Your task to perform on an android device: open the mobile data screen to see how much data has been used Image 0: 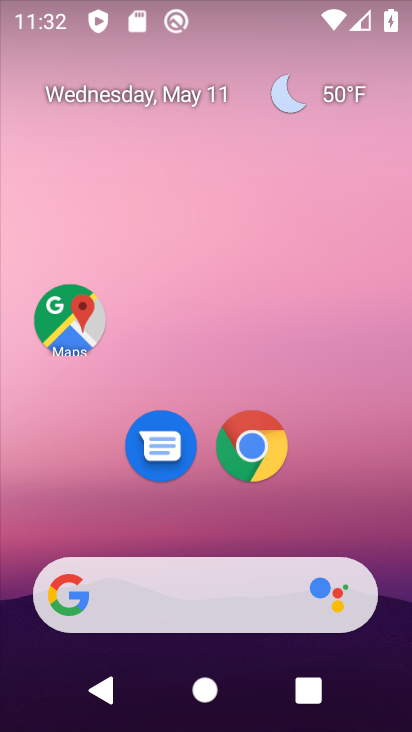
Step 0: drag from (329, 249) to (324, 189)
Your task to perform on an android device: open the mobile data screen to see how much data has been used Image 1: 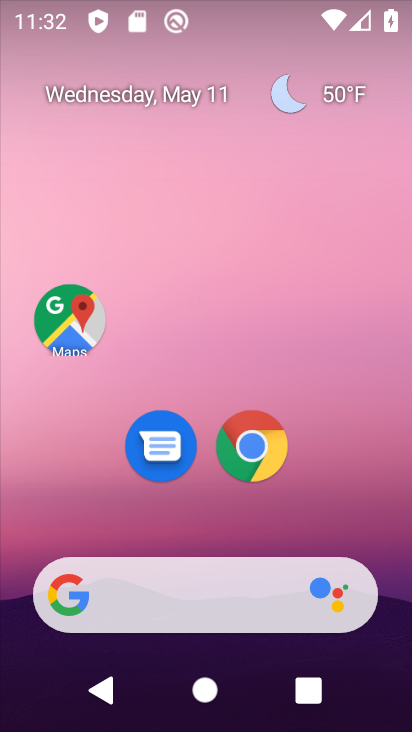
Step 1: drag from (327, 494) to (286, 162)
Your task to perform on an android device: open the mobile data screen to see how much data has been used Image 2: 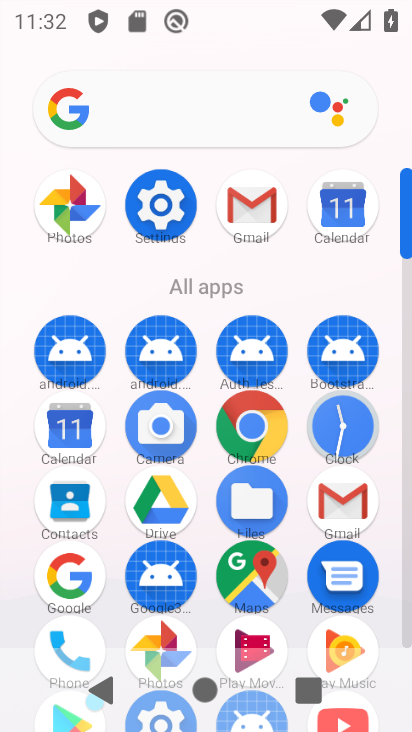
Step 2: click (172, 194)
Your task to perform on an android device: open the mobile data screen to see how much data has been used Image 3: 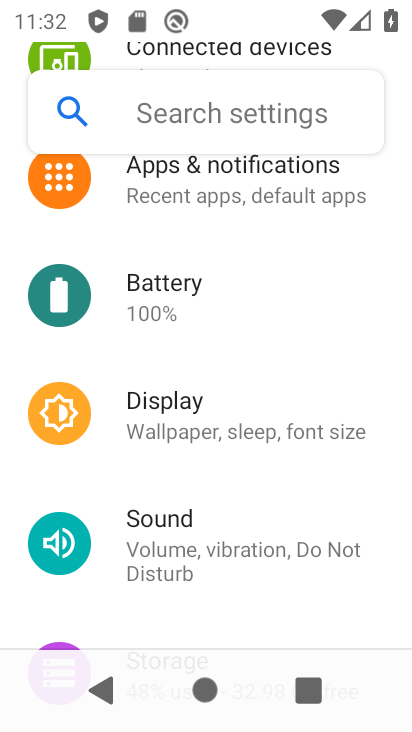
Step 3: drag from (262, 268) to (284, 572)
Your task to perform on an android device: open the mobile data screen to see how much data has been used Image 4: 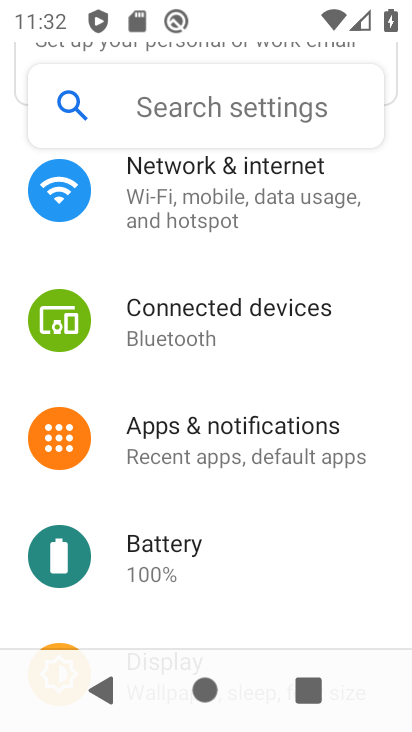
Step 4: click (236, 209)
Your task to perform on an android device: open the mobile data screen to see how much data has been used Image 5: 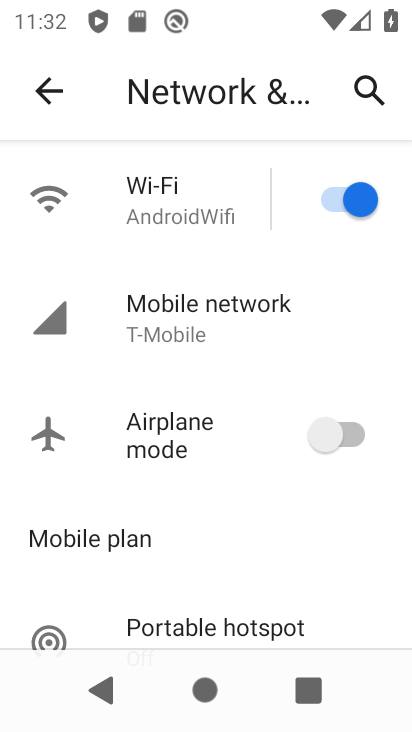
Step 5: click (176, 316)
Your task to perform on an android device: open the mobile data screen to see how much data has been used Image 6: 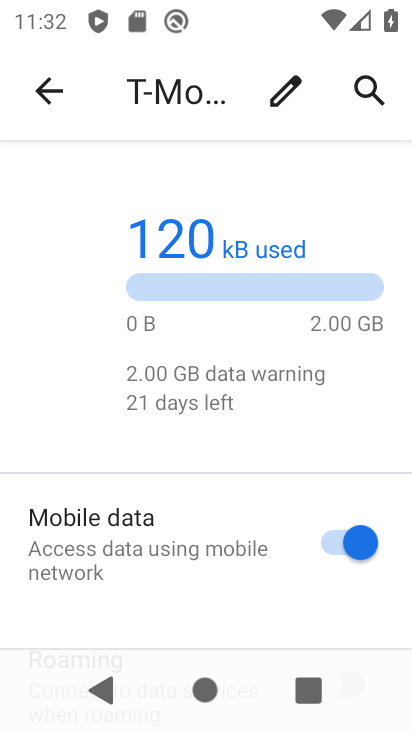
Step 6: drag from (262, 559) to (235, 174)
Your task to perform on an android device: open the mobile data screen to see how much data has been used Image 7: 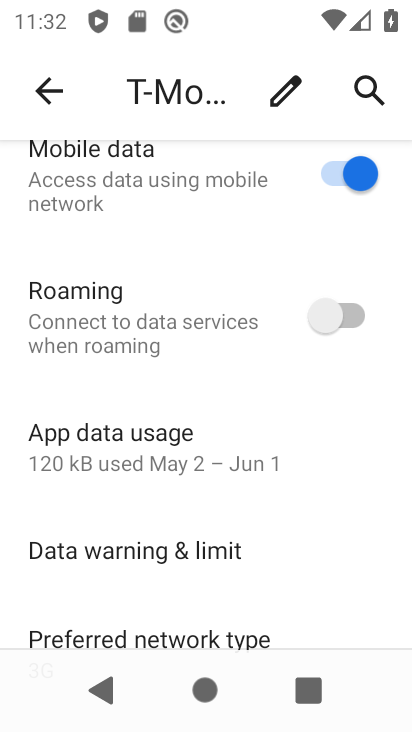
Step 7: drag from (220, 239) to (219, 579)
Your task to perform on an android device: open the mobile data screen to see how much data has been used Image 8: 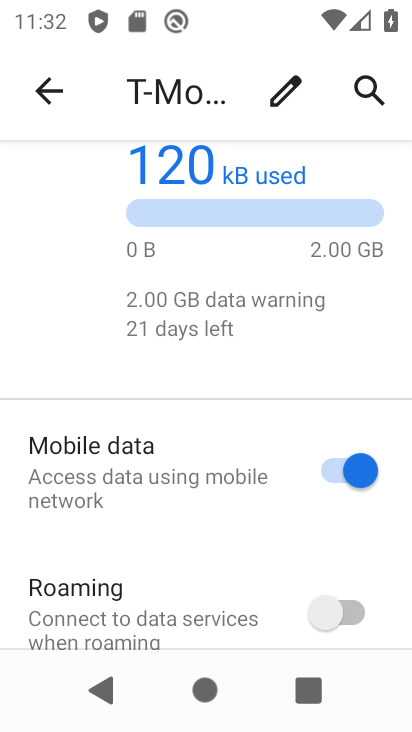
Step 8: drag from (219, 458) to (219, 600)
Your task to perform on an android device: open the mobile data screen to see how much data has been used Image 9: 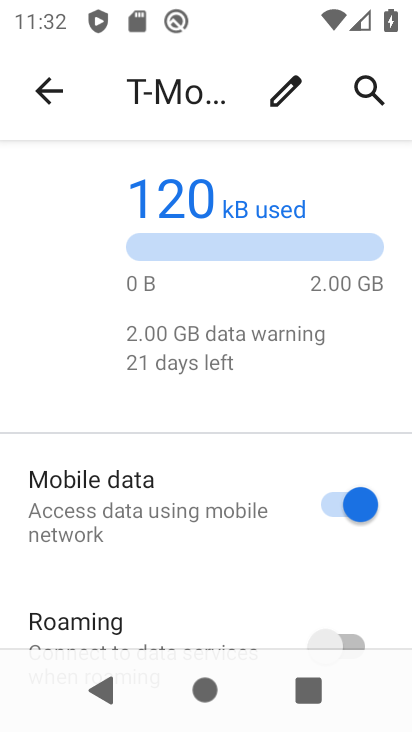
Step 9: drag from (221, 600) to (232, 127)
Your task to perform on an android device: open the mobile data screen to see how much data has been used Image 10: 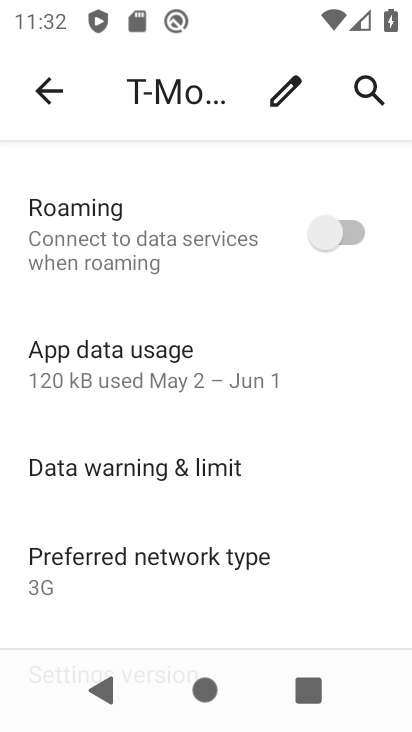
Step 10: drag from (243, 478) to (205, 148)
Your task to perform on an android device: open the mobile data screen to see how much data has been used Image 11: 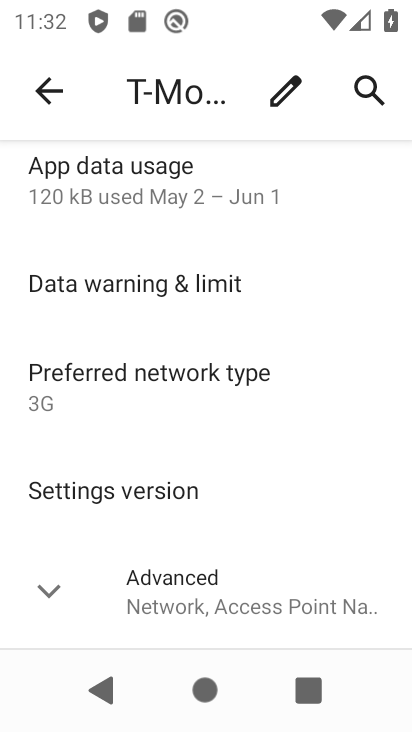
Step 11: drag from (232, 221) to (254, 497)
Your task to perform on an android device: open the mobile data screen to see how much data has been used Image 12: 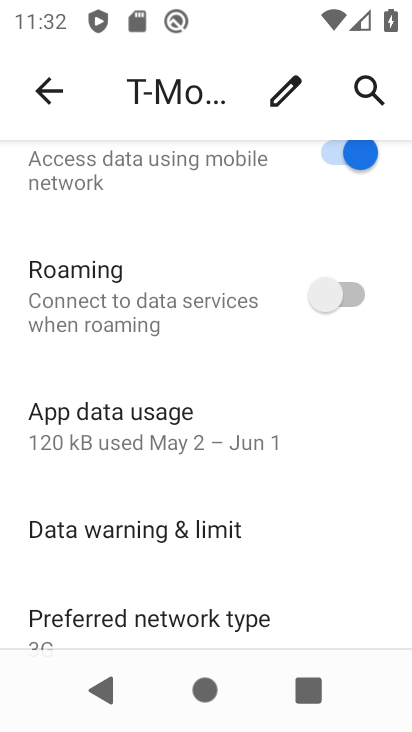
Step 12: drag from (174, 220) to (278, 546)
Your task to perform on an android device: open the mobile data screen to see how much data has been used Image 13: 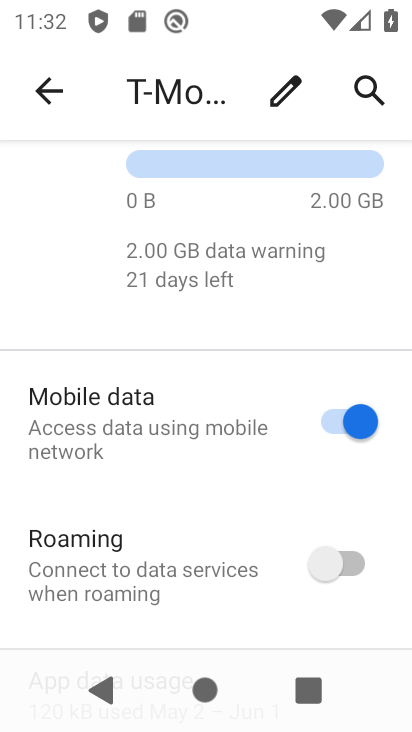
Step 13: drag from (252, 293) to (270, 564)
Your task to perform on an android device: open the mobile data screen to see how much data has been used Image 14: 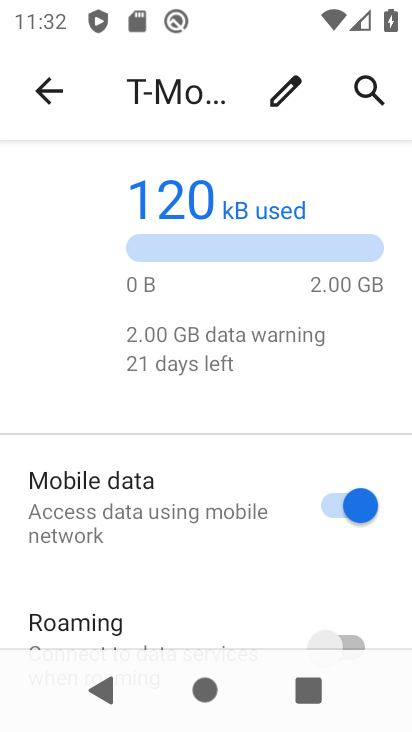
Step 14: drag from (233, 439) to (247, 549)
Your task to perform on an android device: open the mobile data screen to see how much data has been used Image 15: 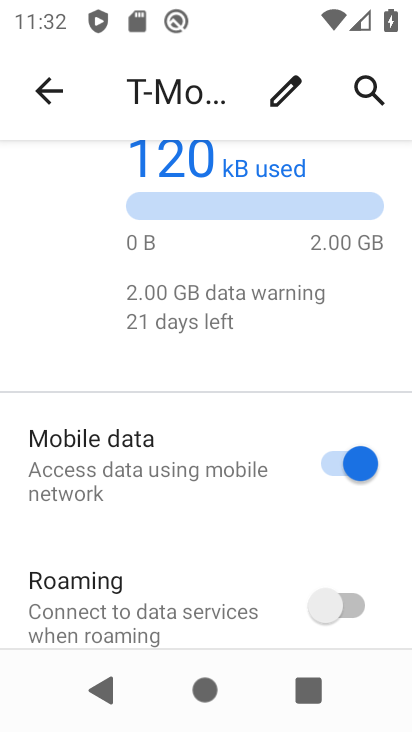
Step 15: drag from (174, 142) to (233, 544)
Your task to perform on an android device: open the mobile data screen to see how much data has been used Image 16: 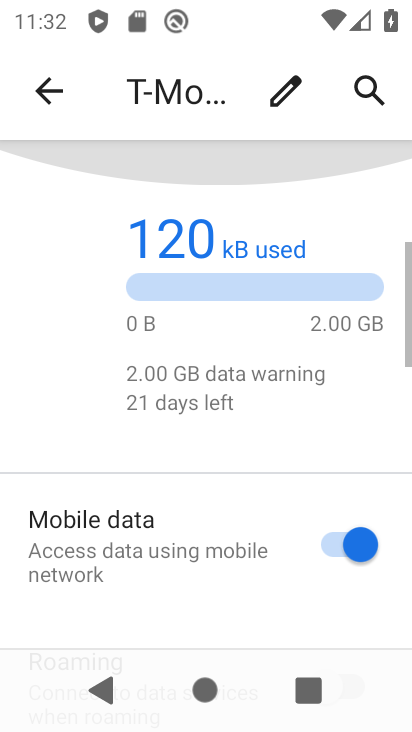
Step 16: drag from (233, 544) to (210, 65)
Your task to perform on an android device: open the mobile data screen to see how much data has been used Image 17: 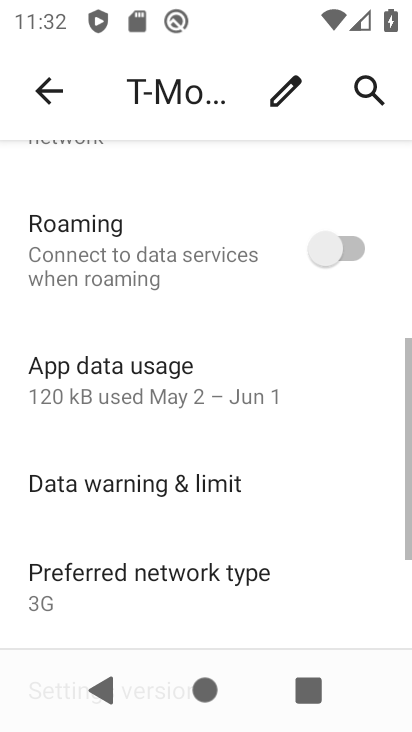
Step 17: drag from (218, 393) to (214, 48)
Your task to perform on an android device: open the mobile data screen to see how much data has been used Image 18: 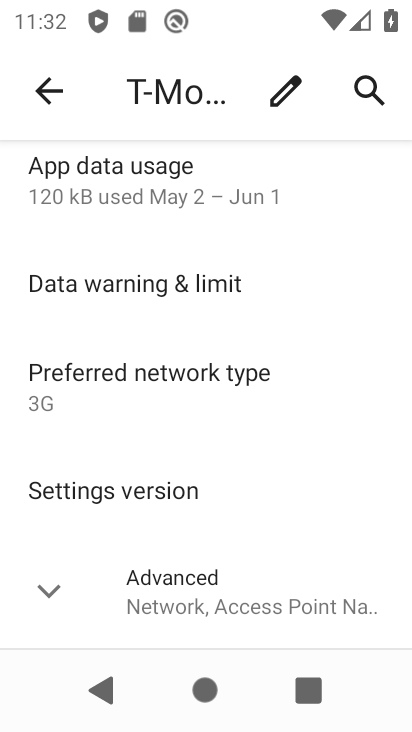
Step 18: click (120, 190)
Your task to perform on an android device: open the mobile data screen to see how much data has been used Image 19: 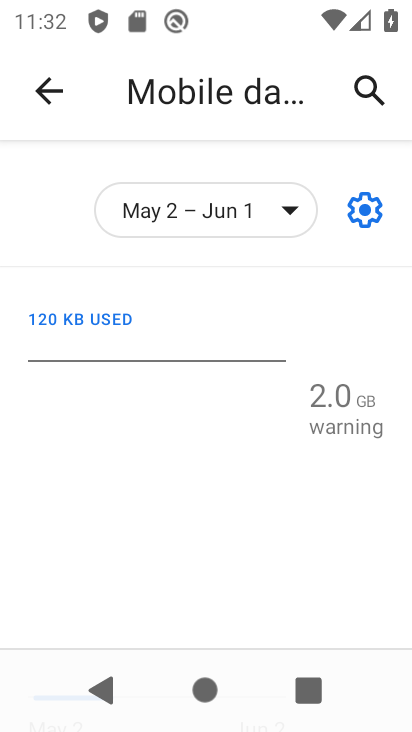
Step 19: task complete